Your task to perform on an android device: Show me some nice wallpapers for my computer Image 0: 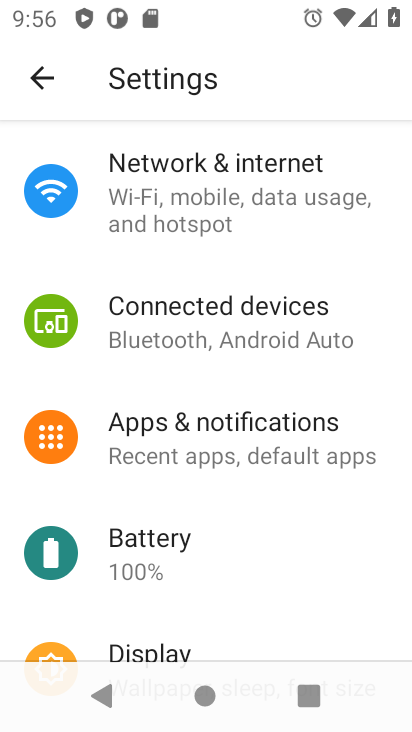
Step 0: press home button
Your task to perform on an android device: Show me some nice wallpapers for my computer Image 1: 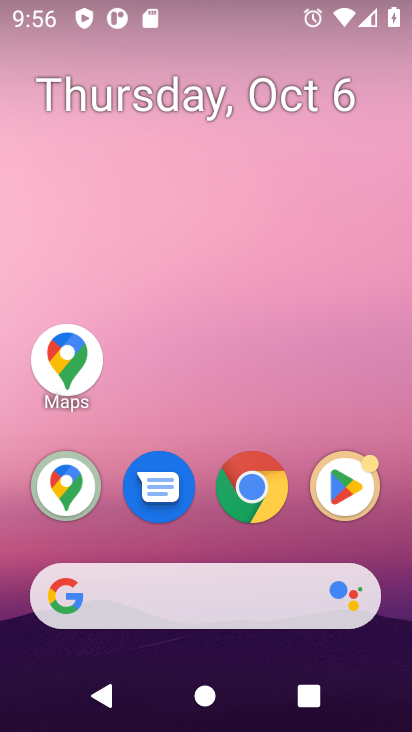
Step 1: drag from (173, 514) to (149, 88)
Your task to perform on an android device: Show me some nice wallpapers for my computer Image 2: 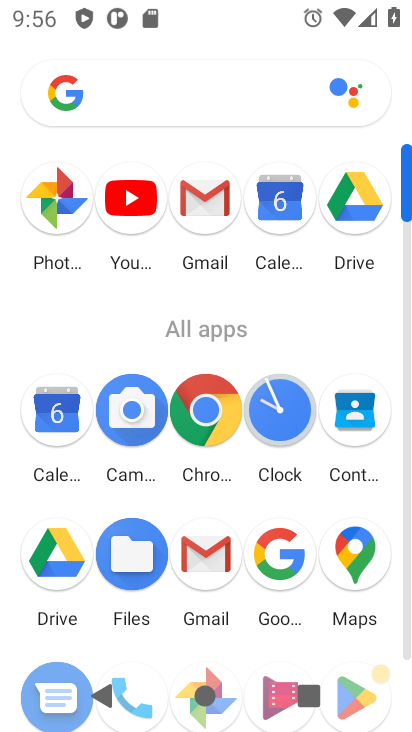
Step 2: click (212, 384)
Your task to perform on an android device: Show me some nice wallpapers for my computer Image 3: 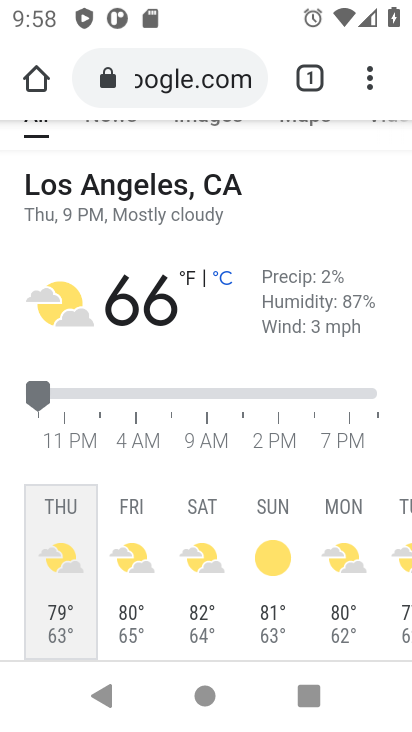
Step 3: drag from (283, 213) to (289, 535)
Your task to perform on an android device: Show me some nice wallpapers for my computer Image 4: 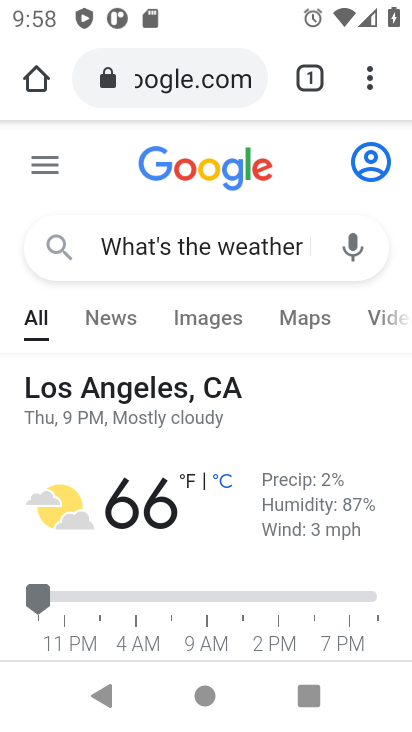
Step 4: click (205, 75)
Your task to perform on an android device: Show me some nice wallpapers for my computer Image 5: 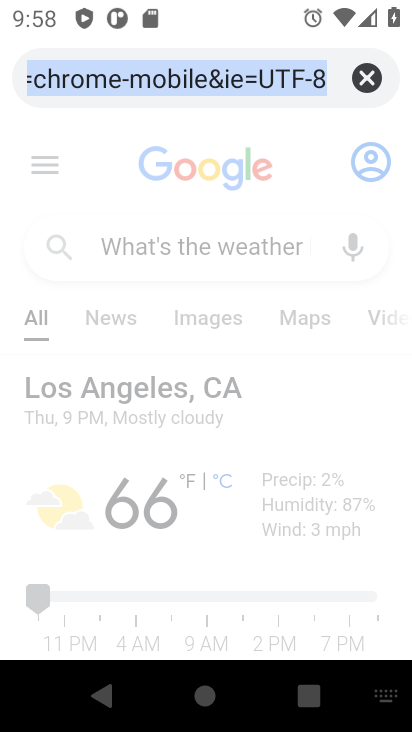
Step 5: click (369, 74)
Your task to perform on an android device: Show me some nice wallpapers for my computer Image 6: 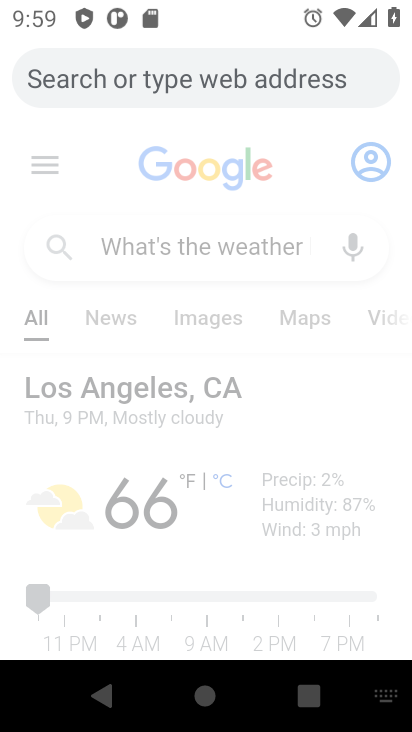
Step 6: type "Show me some nice wallpapers for my computer"
Your task to perform on an android device: Show me some nice wallpapers for my computer Image 7: 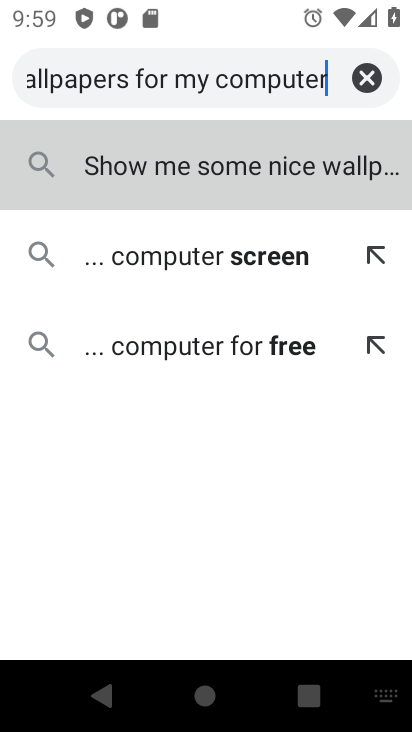
Step 7: press enter
Your task to perform on an android device: Show me some nice wallpapers for my computer Image 8: 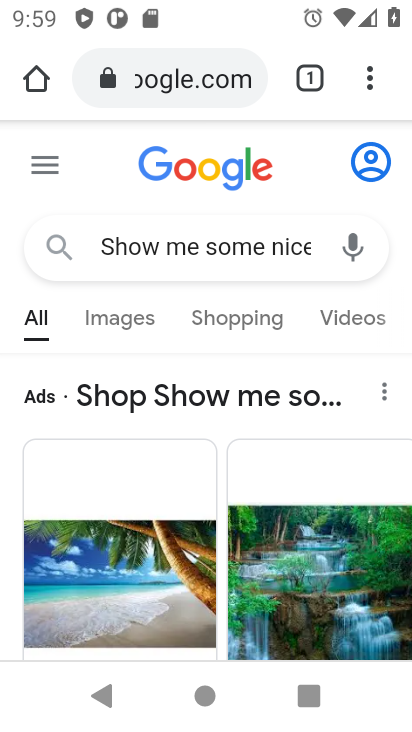
Step 8: task complete